Your task to perform on an android device: Go to internet settings Image 0: 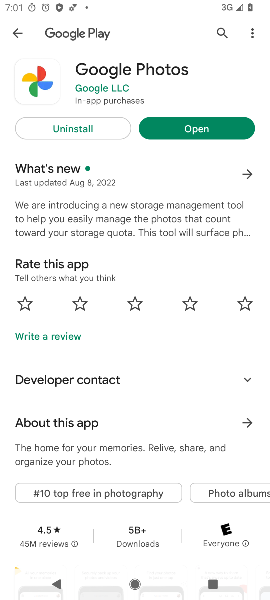
Step 0: press home button
Your task to perform on an android device: Go to internet settings Image 1: 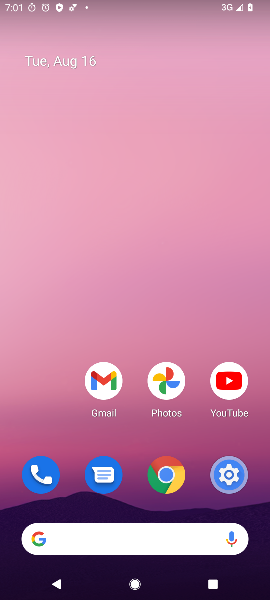
Step 1: drag from (200, 504) to (176, 113)
Your task to perform on an android device: Go to internet settings Image 2: 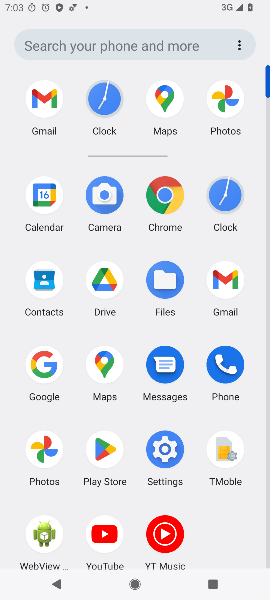
Step 2: click (177, 457)
Your task to perform on an android device: Go to internet settings Image 3: 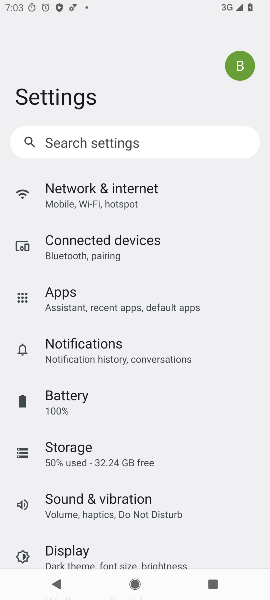
Step 3: click (127, 199)
Your task to perform on an android device: Go to internet settings Image 4: 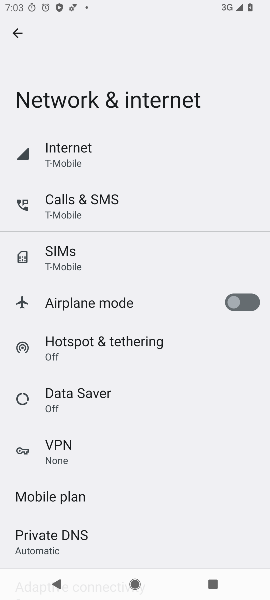
Step 4: task complete